Your task to perform on an android device: empty trash in google photos Image 0: 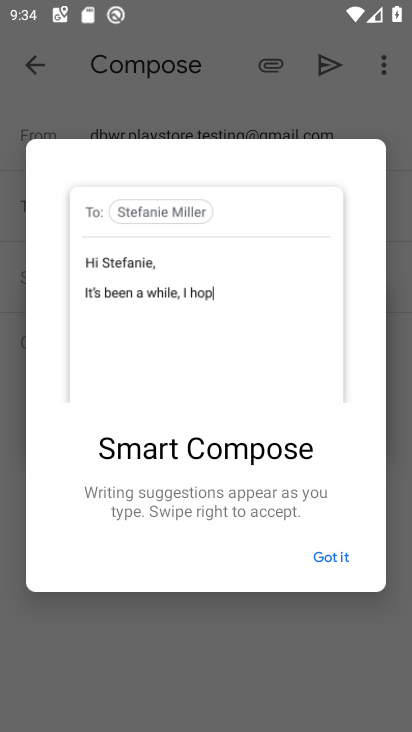
Step 0: press home button
Your task to perform on an android device: empty trash in google photos Image 1: 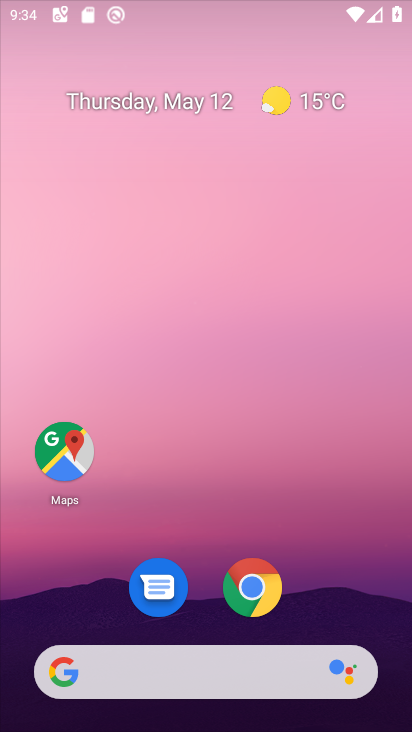
Step 1: drag from (392, 669) to (257, 52)
Your task to perform on an android device: empty trash in google photos Image 2: 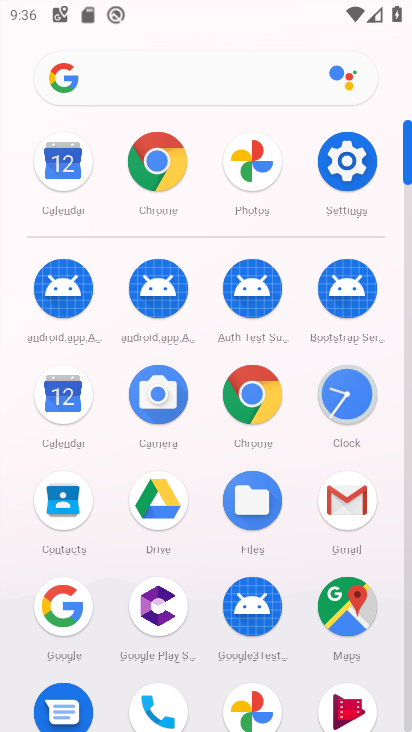
Step 2: click (262, 676)
Your task to perform on an android device: empty trash in google photos Image 3: 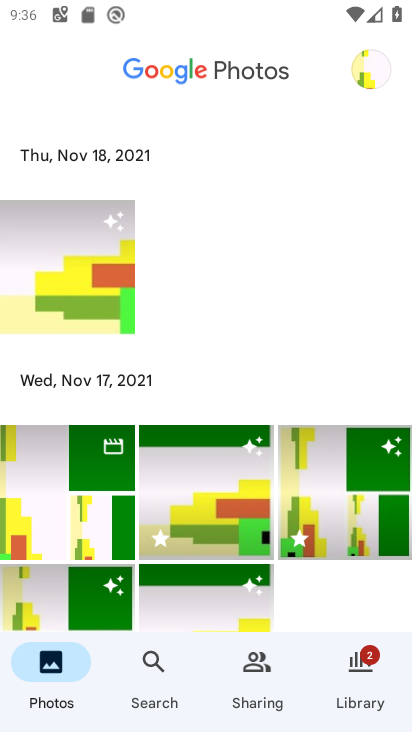
Step 3: click (360, 657)
Your task to perform on an android device: empty trash in google photos Image 4: 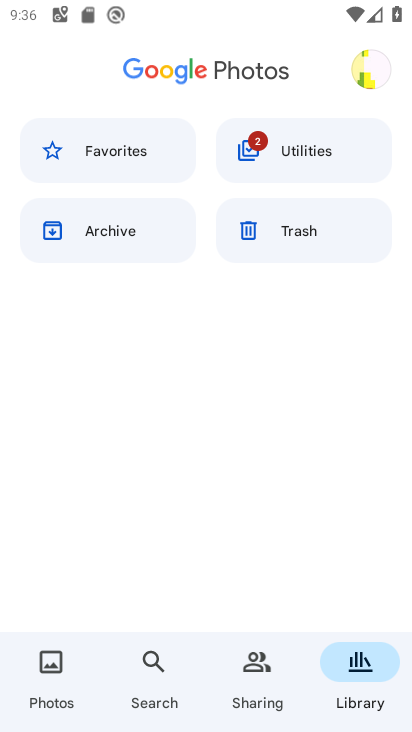
Step 4: click (329, 229)
Your task to perform on an android device: empty trash in google photos Image 5: 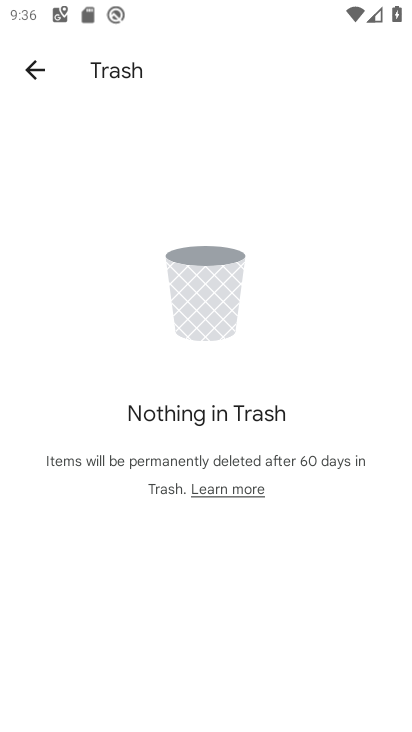
Step 5: task complete